Your task to perform on an android device: turn on wifi Image 0: 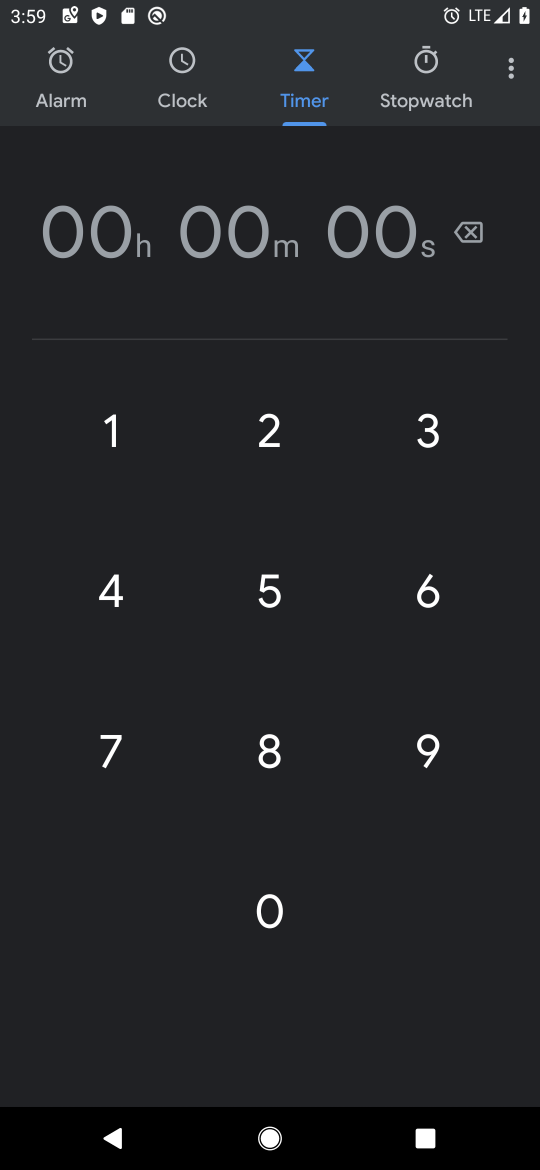
Step 0: press home button
Your task to perform on an android device: turn on wifi Image 1: 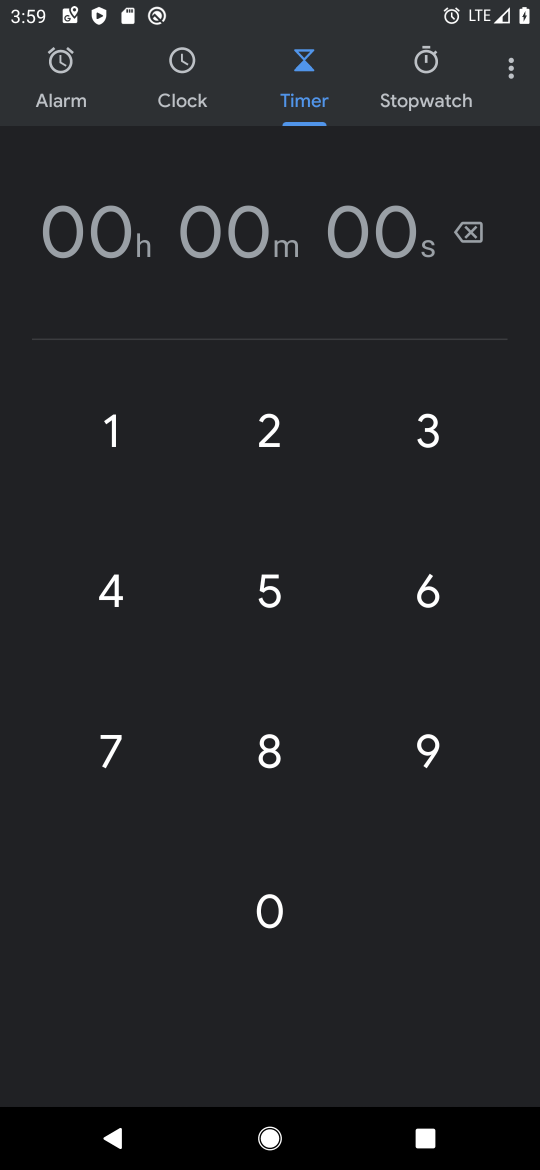
Step 1: press home button
Your task to perform on an android device: turn on wifi Image 2: 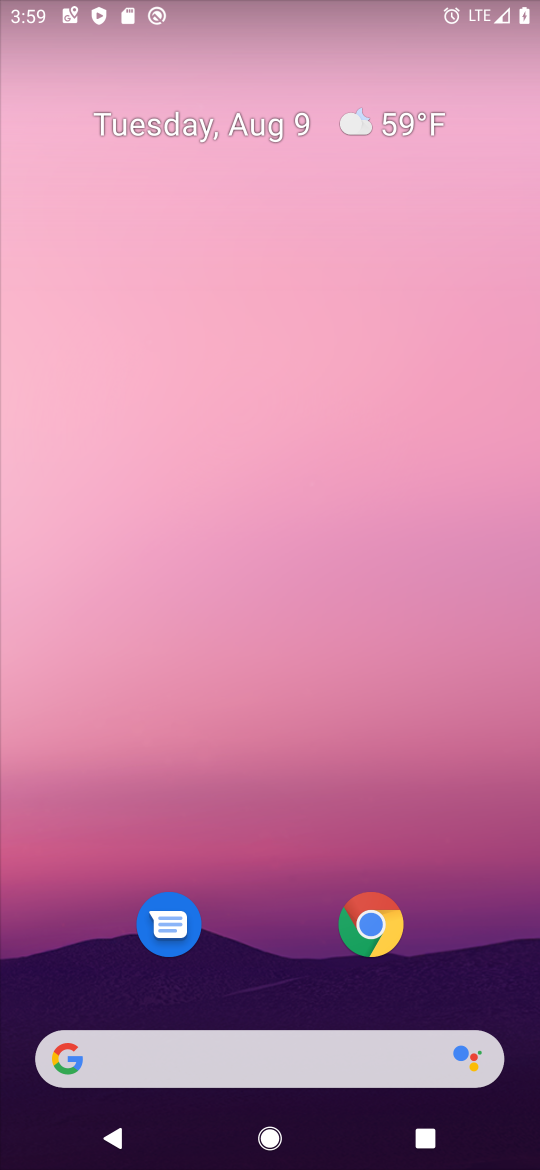
Step 2: press home button
Your task to perform on an android device: turn on wifi Image 3: 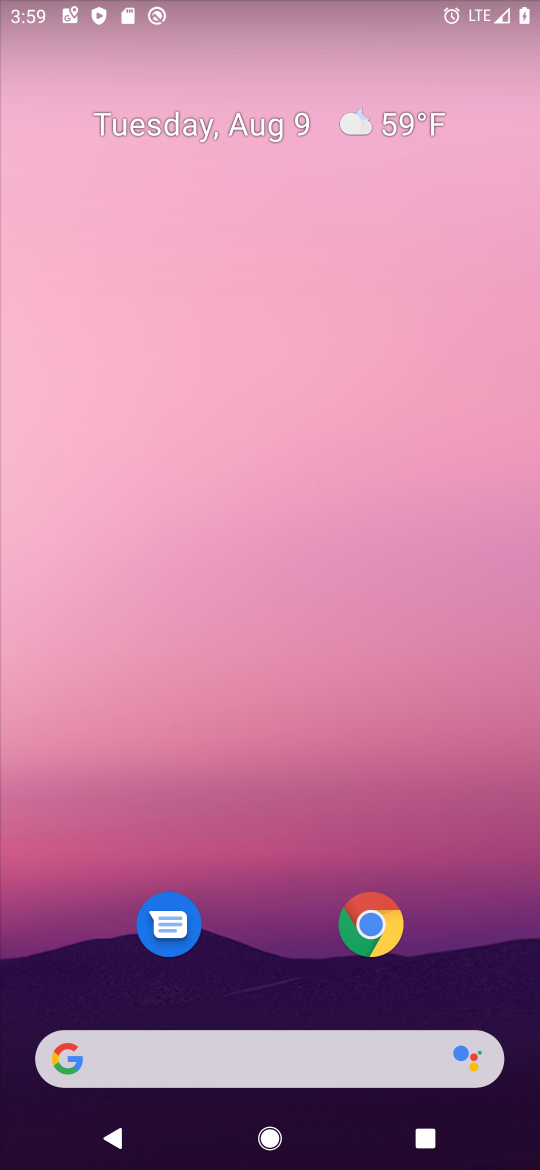
Step 3: drag from (250, 944) to (304, 2)
Your task to perform on an android device: turn on wifi Image 4: 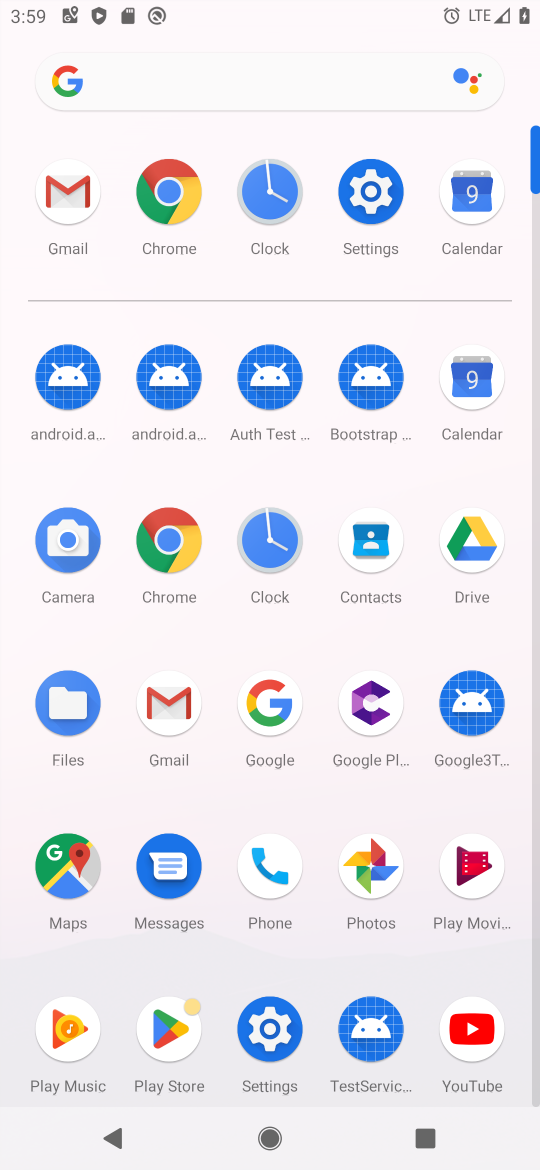
Step 4: click (371, 187)
Your task to perform on an android device: turn on wifi Image 5: 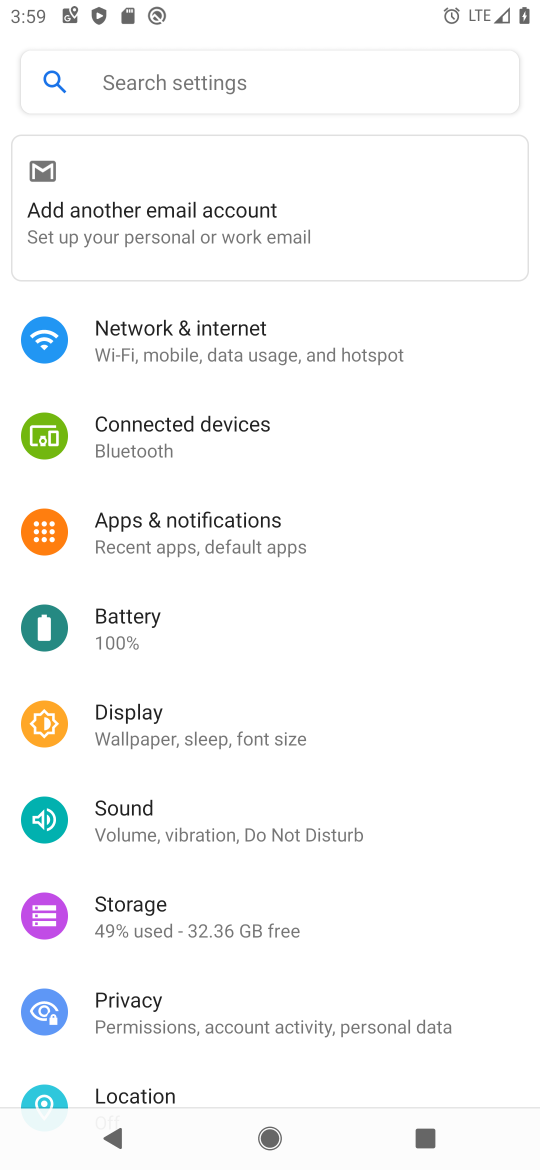
Step 5: click (308, 351)
Your task to perform on an android device: turn on wifi Image 6: 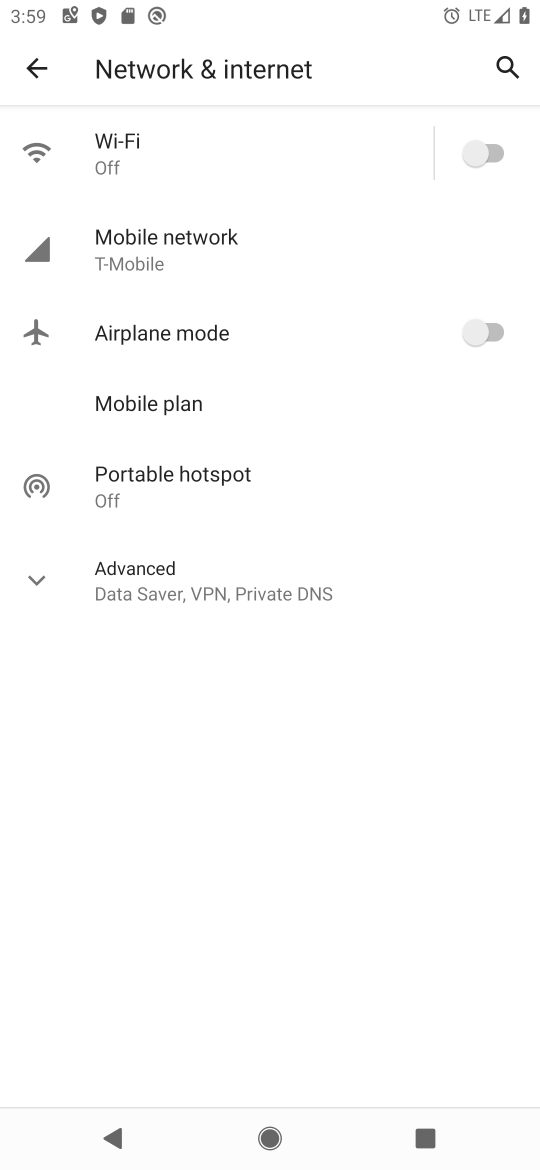
Step 6: click (481, 153)
Your task to perform on an android device: turn on wifi Image 7: 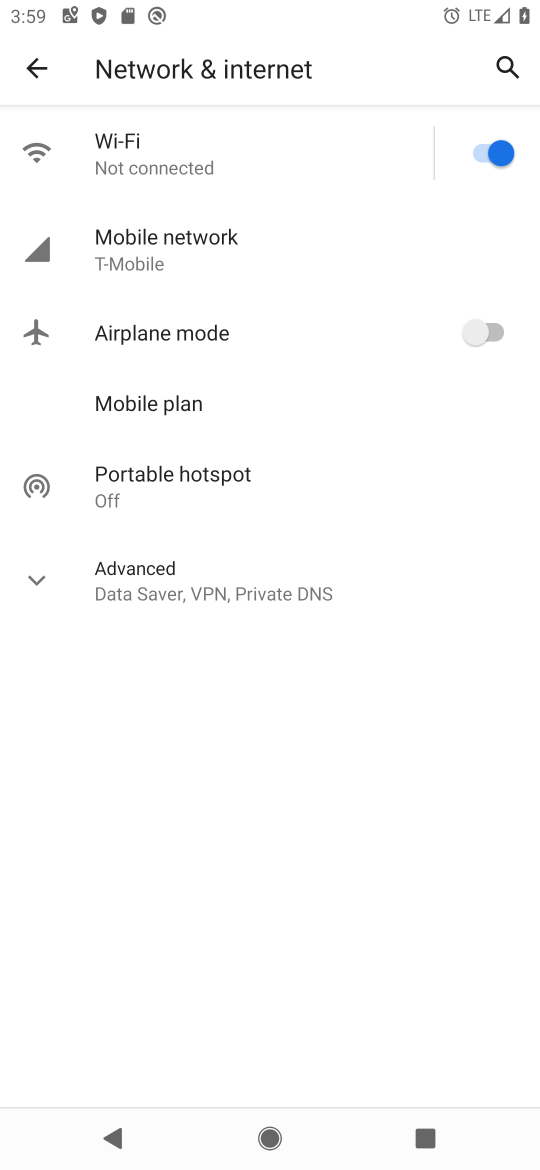
Step 7: task complete